Your task to perform on an android device: Clear all items from cart on walmart.com. Search for "acer nitro" on walmart.com, select the first entry, and add it to the cart. Image 0: 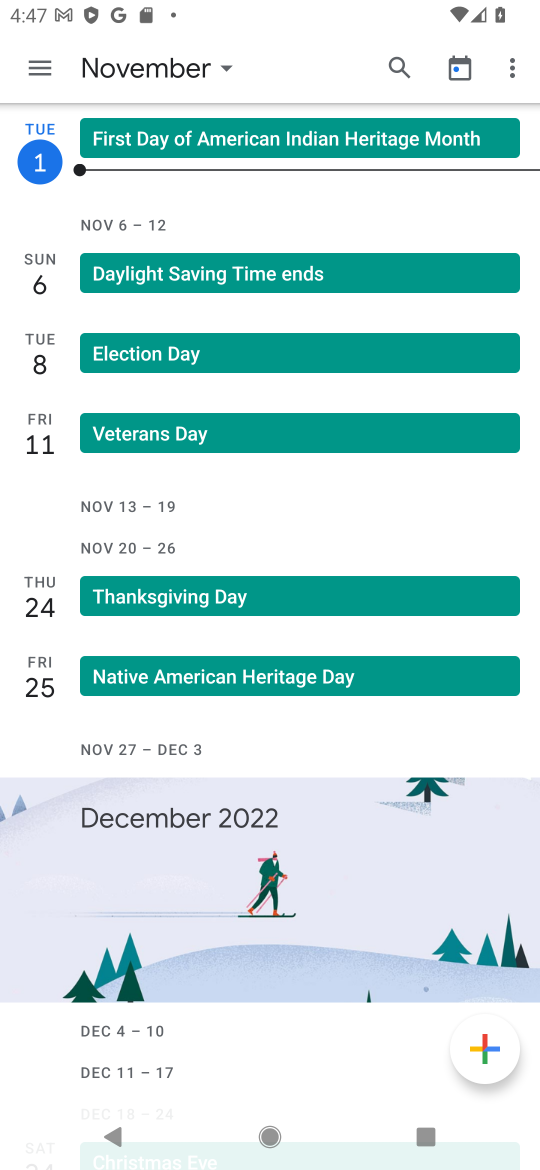
Step 0: press home button
Your task to perform on an android device: Clear all items from cart on walmart.com. Search for "acer nitro" on walmart.com, select the first entry, and add it to the cart. Image 1: 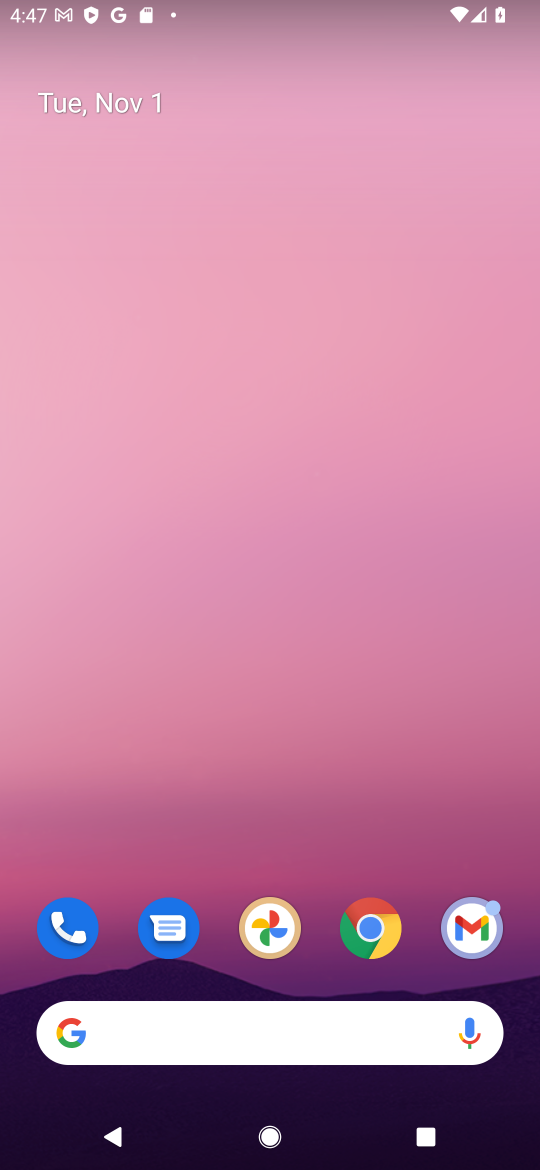
Step 1: click (366, 942)
Your task to perform on an android device: Clear all items from cart on walmart.com. Search for "acer nitro" on walmart.com, select the first entry, and add it to the cart. Image 2: 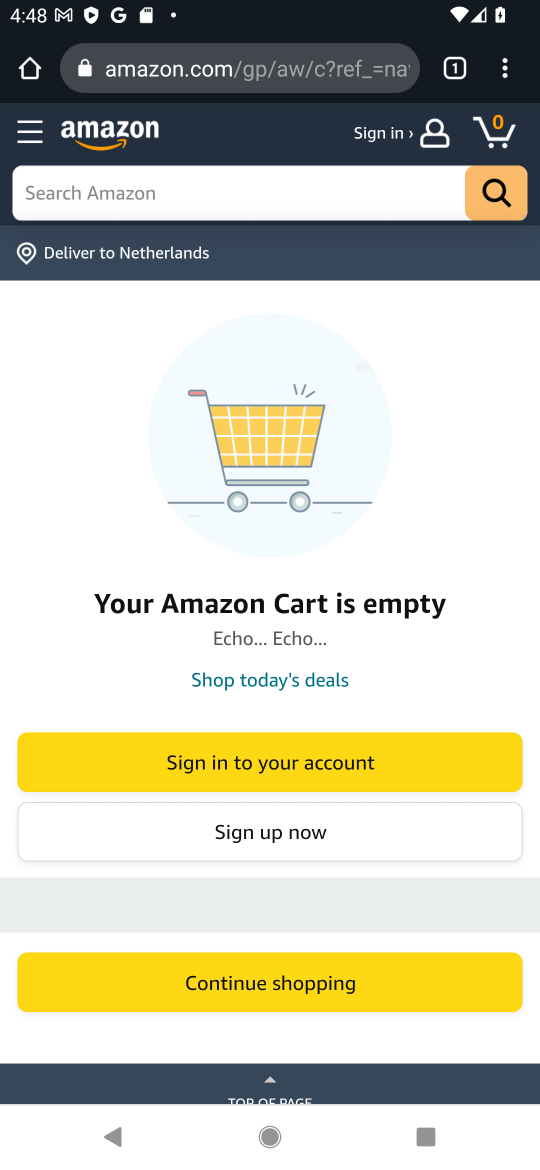
Step 2: click (276, 62)
Your task to perform on an android device: Clear all items from cart on walmart.com. Search for "acer nitro" on walmart.com, select the first entry, and add it to the cart. Image 3: 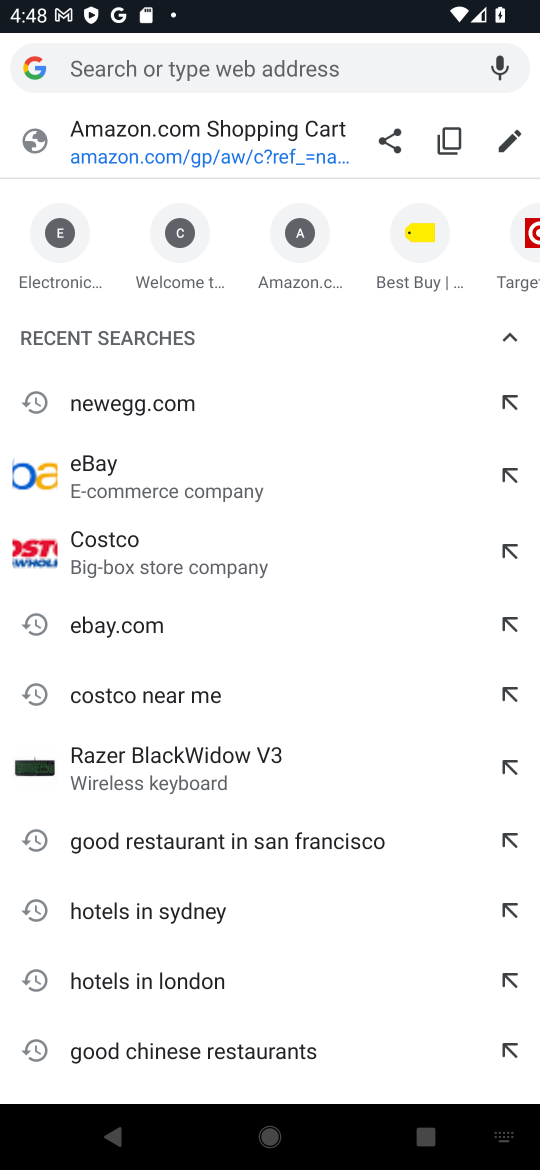
Step 3: type "walmart.com"
Your task to perform on an android device: Clear all items from cart on walmart.com. Search for "acer nitro" on walmart.com, select the first entry, and add it to the cart. Image 4: 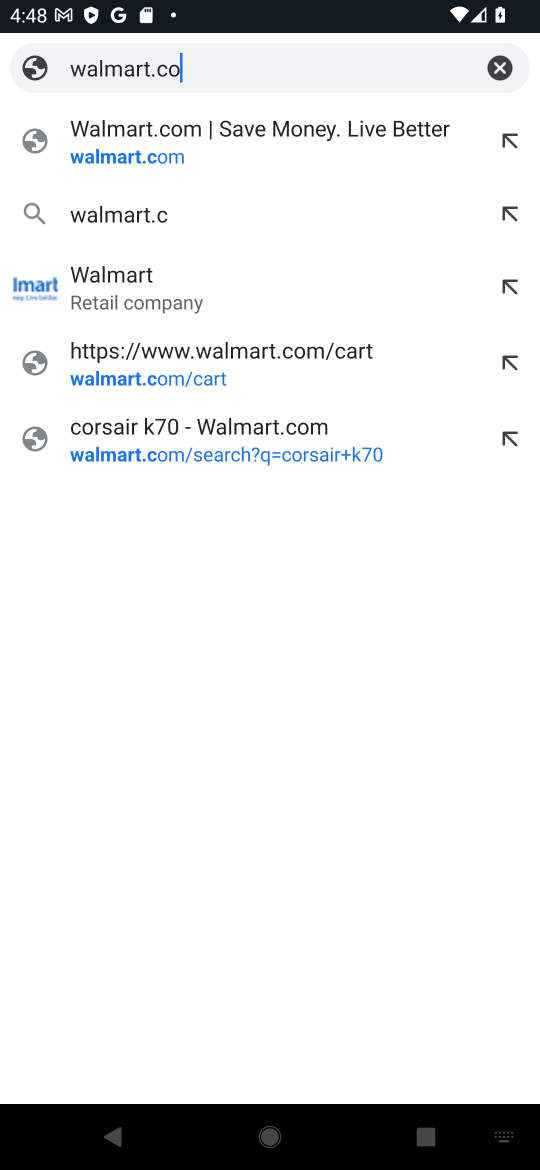
Step 4: type ""
Your task to perform on an android device: Clear all items from cart on walmart.com. Search for "acer nitro" on walmart.com, select the first entry, and add it to the cart. Image 5: 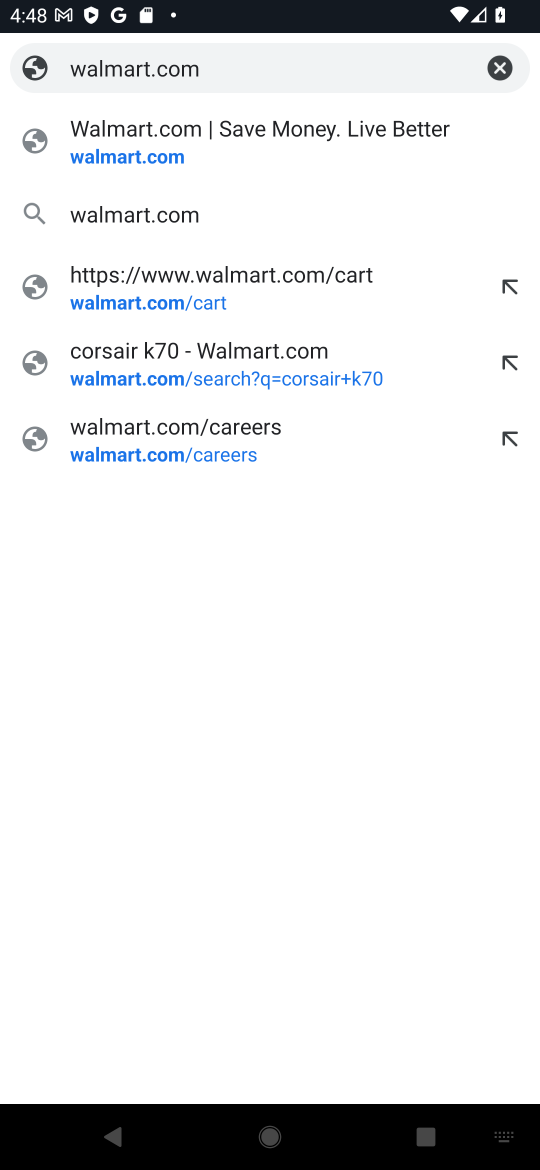
Step 5: press enter
Your task to perform on an android device: Clear all items from cart on walmart.com. Search for "acer nitro" on walmart.com, select the first entry, and add it to the cart. Image 6: 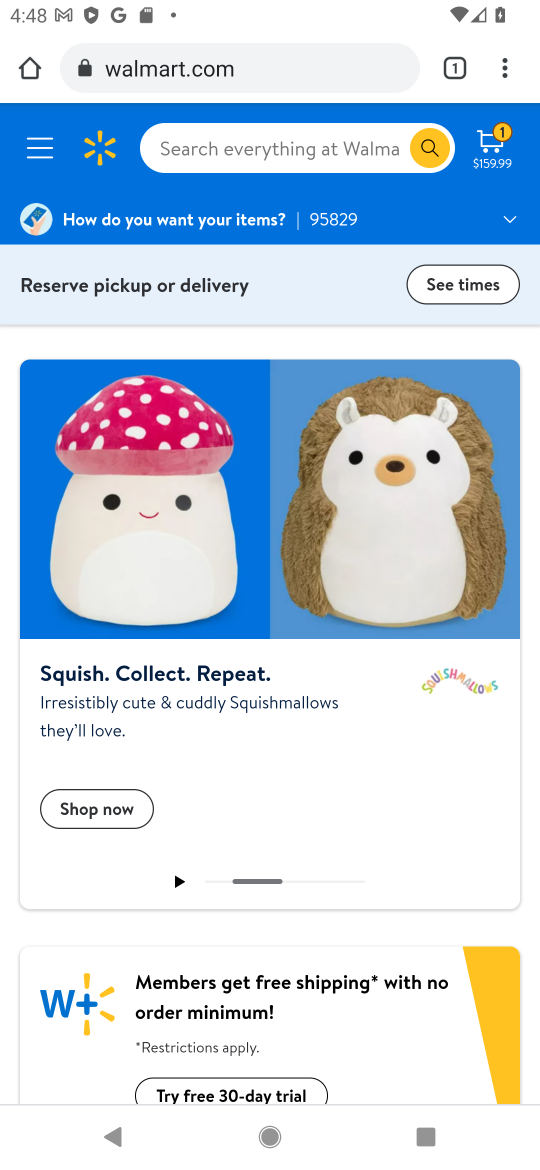
Step 6: click (491, 152)
Your task to perform on an android device: Clear all items from cart on walmart.com. Search for "acer nitro" on walmart.com, select the first entry, and add it to the cart. Image 7: 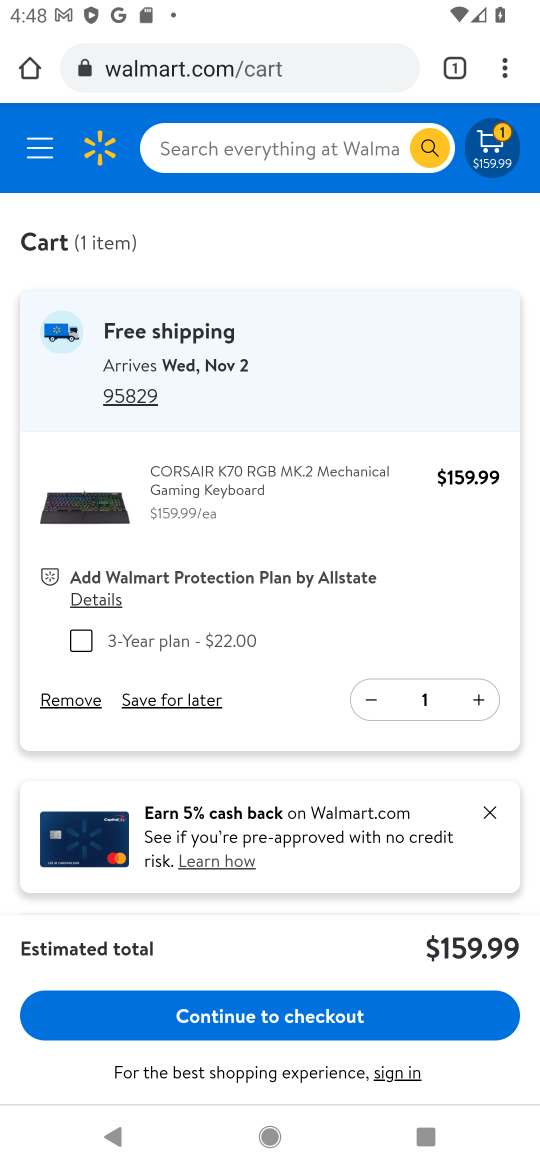
Step 7: click (71, 705)
Your task to perform on an android device: Clear all items from cart on walmart.com. Search for "acer nitro" on walmart.com, select the first entry, and add it to the cart. Image 8: 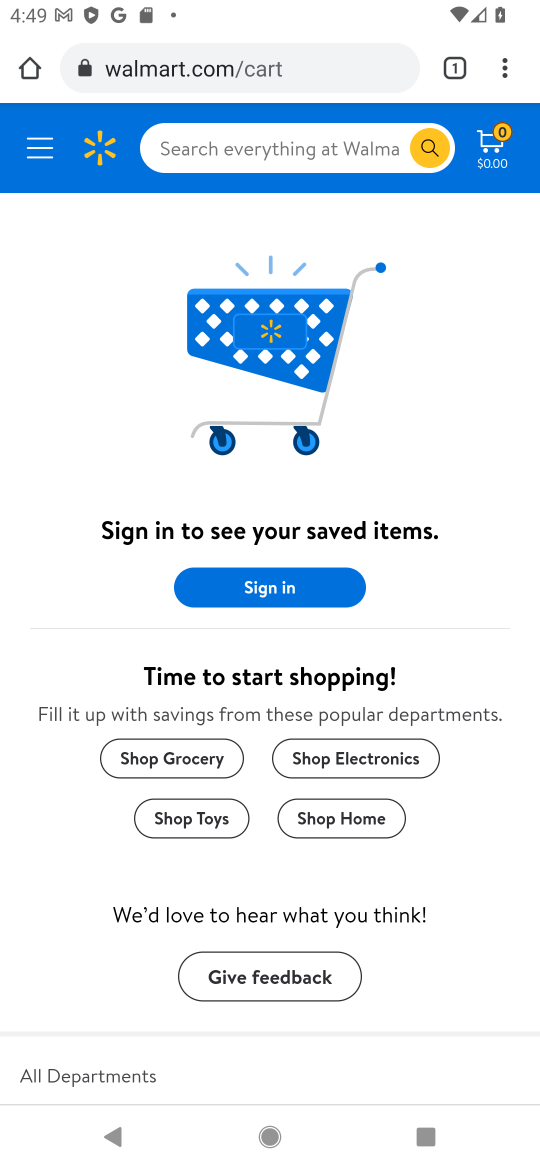
Step 8: click (278, 154)
Your task to perform on an android device: Clear all items from cart on walmart.com. Search for "acer nitro" on walmart.com, select the first entry, and add it to the cart. Image 9: 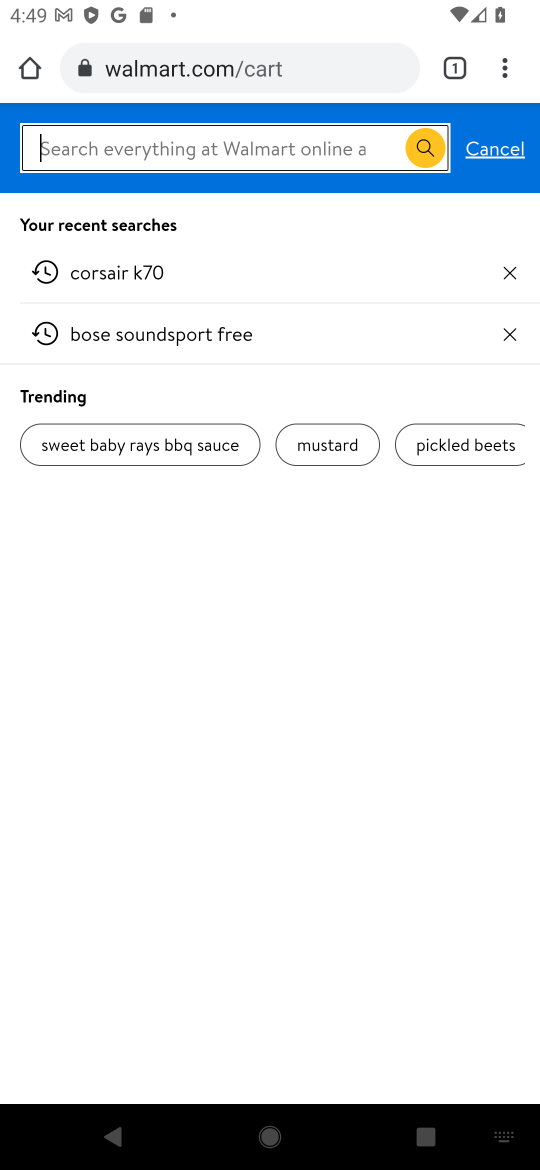
Step 9: type "walmart.com"
Your task to perform on an android device: Clear all items from cart on walmart.com. Search for "acer nitro" on walmart.com, select the first entry, and add it to the cart. Image 10: 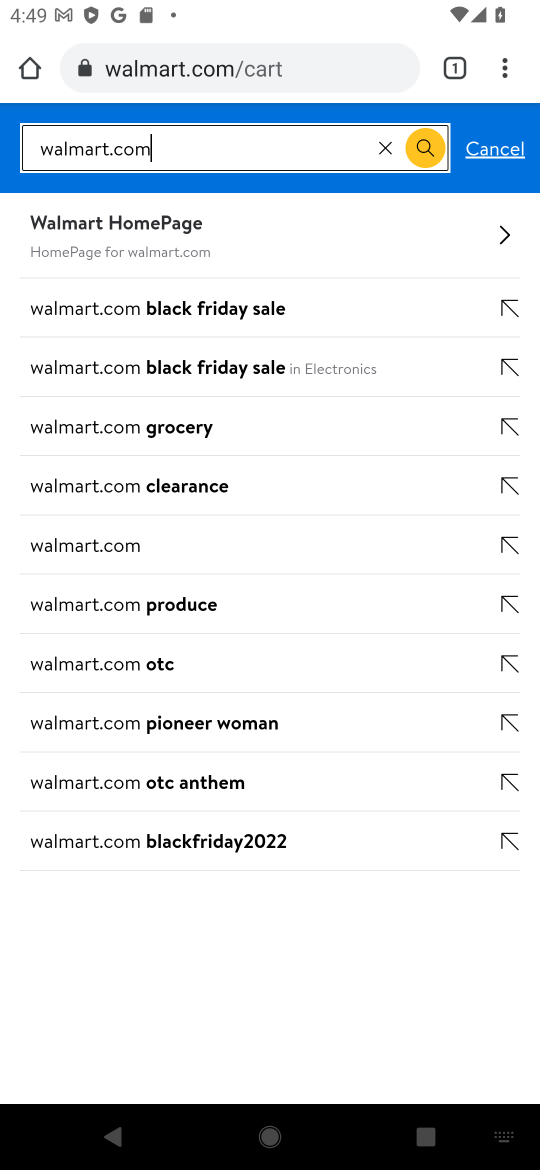
Step 10: click (380, 147)
Your task to perform on an android device: Clear all items from cart on walmart.com. Search for "acer nitro" on walmart.com, select the first entry, and add it to the cart. Image 11: 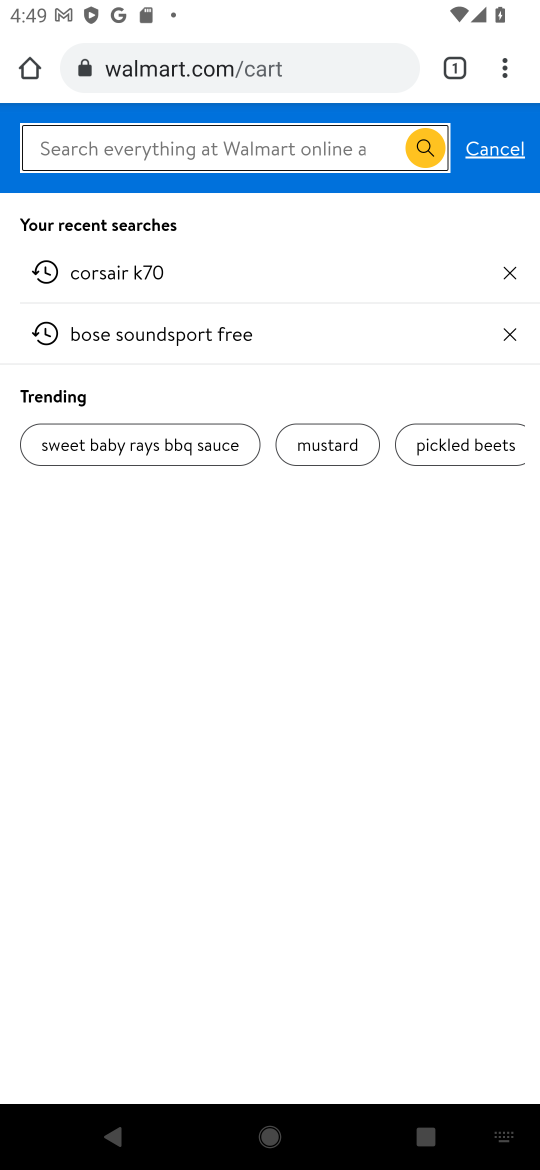
Step 11: type "acer nitro"
Your task to perform on an android device: Clear all items from cart on walmart.com. Search for "acer nitro" on walmart.com, select the first entry, and add it to the cart. Image 12: 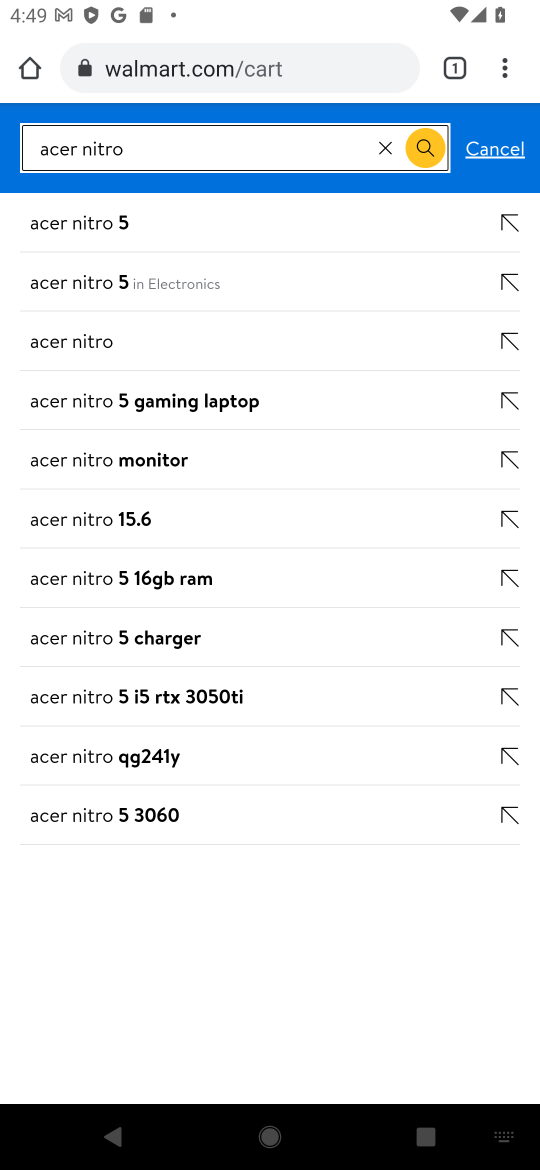
Step 12: press enter
Your task to perform on an android device: Clear all items from cart on walmart.com. Search for "acer nitro" on walmart.com, select the first entry, and add it to the cart. Image 13: 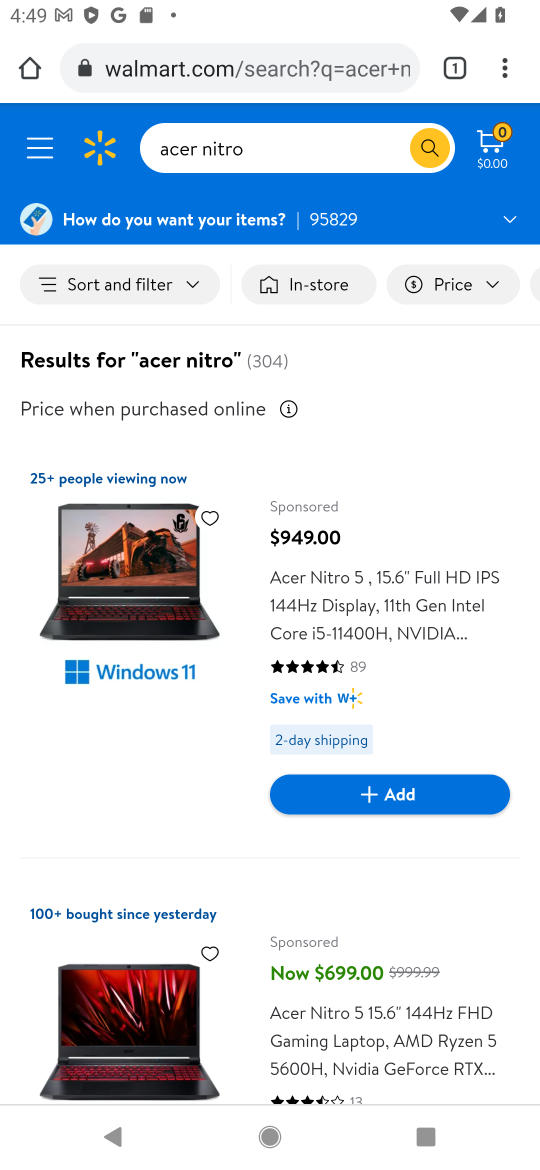
Step 13: click (358, 580)
Your task to perform on an android device: Clear all items from cart on walmart.com. Search for "acer nitro" on walmart.com, select the first entry, and add it to the cart. Image 14: 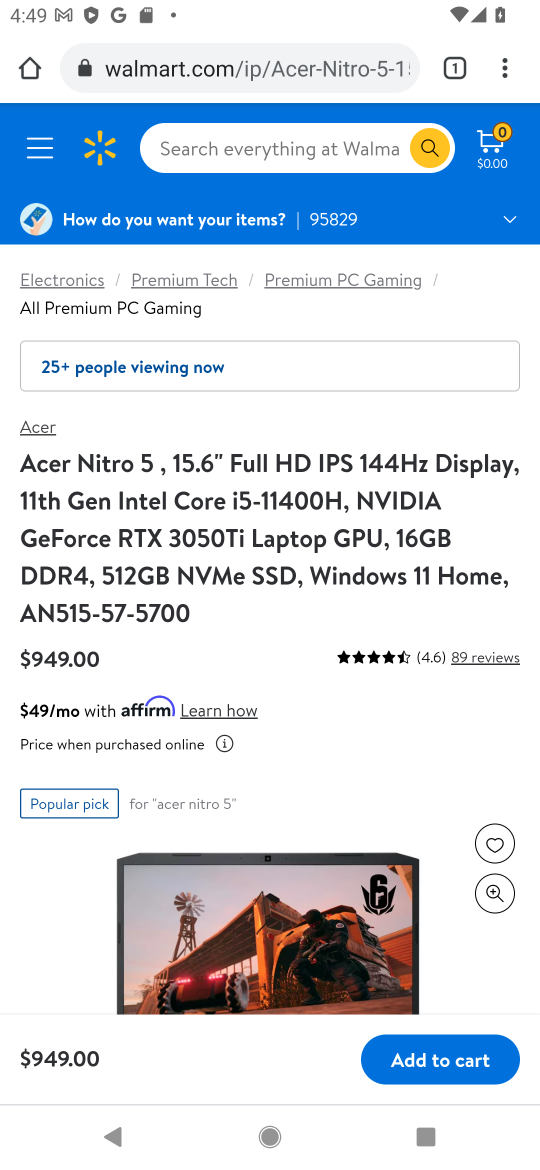
Step 14: click (471, 1067)
Your task to perform on an android device: Clear all items from cart on walmart.com. Search for "acer nitro" on walmart.com, select the first entry, and add it to the cart. Image 15: 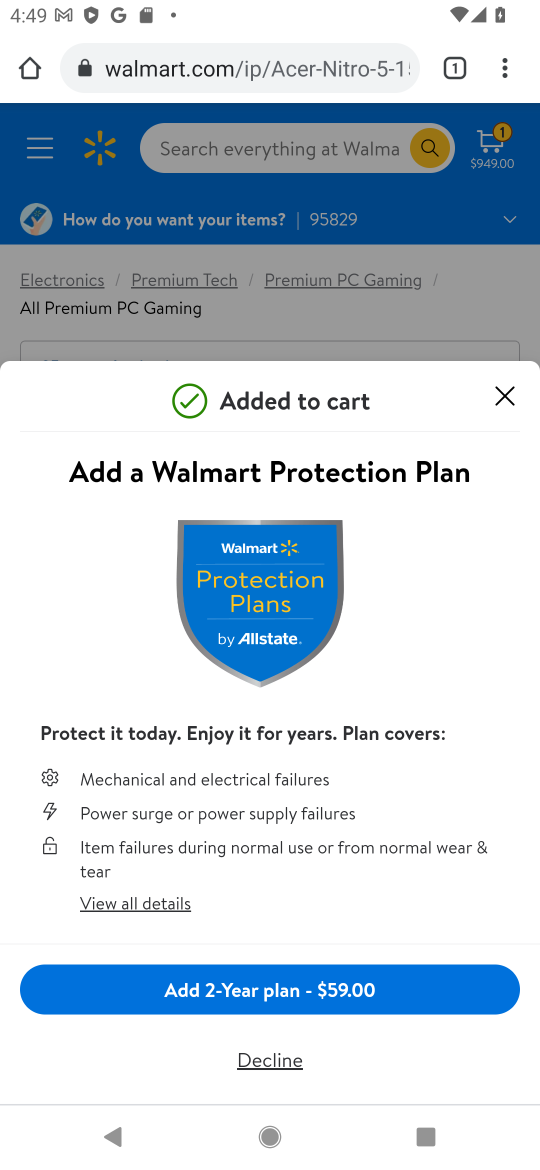
Step 15: click (279, 1065)
Your task to perform on an android device: Clear all items from cart on walmart.com. Search for "acer nitro" on walmart.com, select the first entry, and add it to the cart. Image 16: 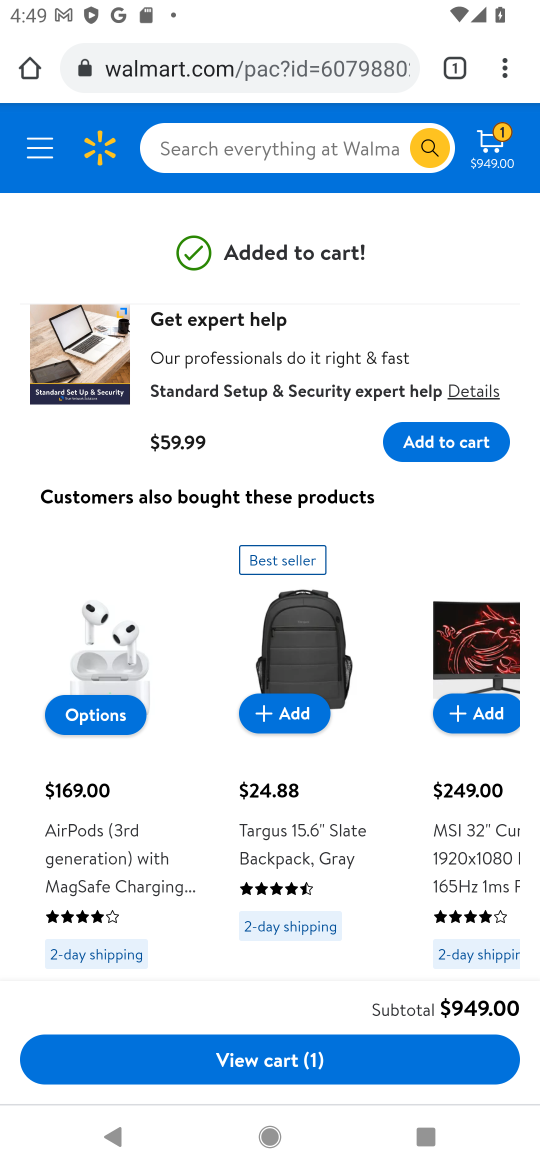
Step 16: click (356, 1068)
Your task to perform on an android device: Clear all items from cart on walmart.com. Search for "acer nitro" on walmart.com, select the first entry, and add it to the cart. Image 17: 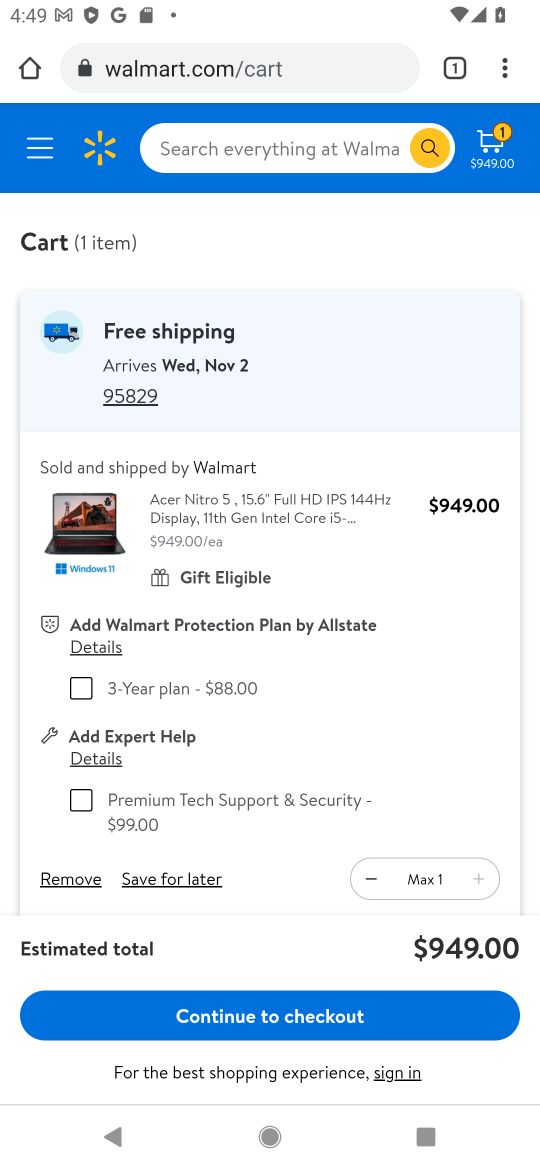
Step 17: task complete